Your task to perform on an android device: Open the Play Movies app and select the watchlist tab. Image 0: 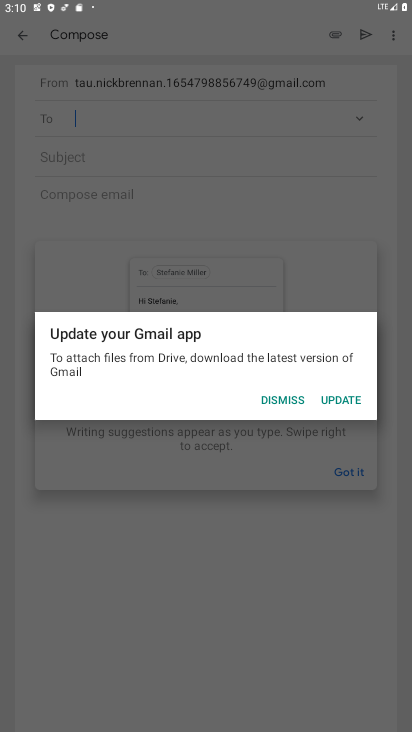
Step 0: press home button
Your task to perform on an android device: Open the Play Movies app and select the watchlist tab. Image 1: 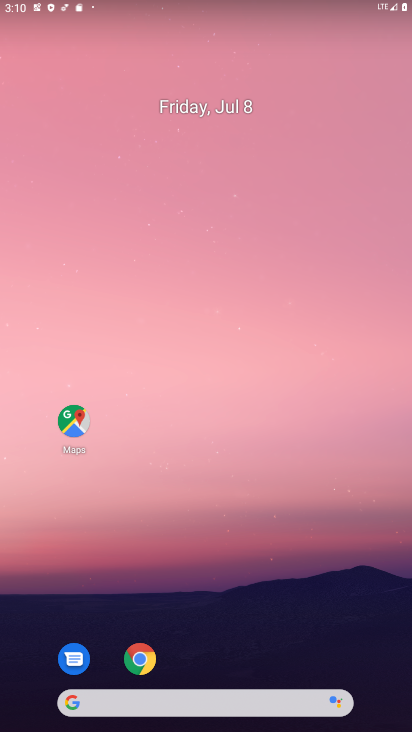
Step 1: drag from (210, 630) to (209, 191)
Your task to perform on an android device: Open the Play Movies app and select the watchlist tab. Image 2: 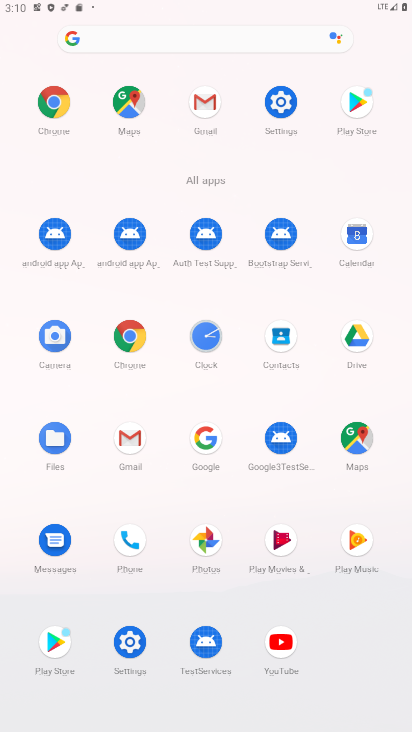
Step 2: click (291, 541)
Your task to perform on an android device: Open the Play Movies app and select the watchlist tab. Image 3: 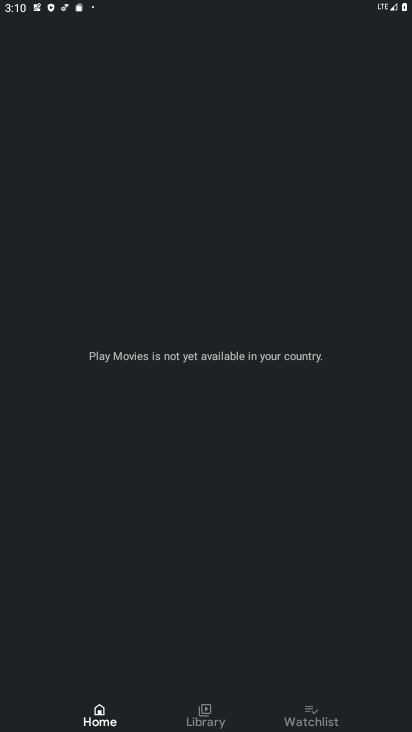
Step 3: click (316, 705)
Your task to perform on an android device: Open the Play Movies app and select the watchlist tab. Image 4: 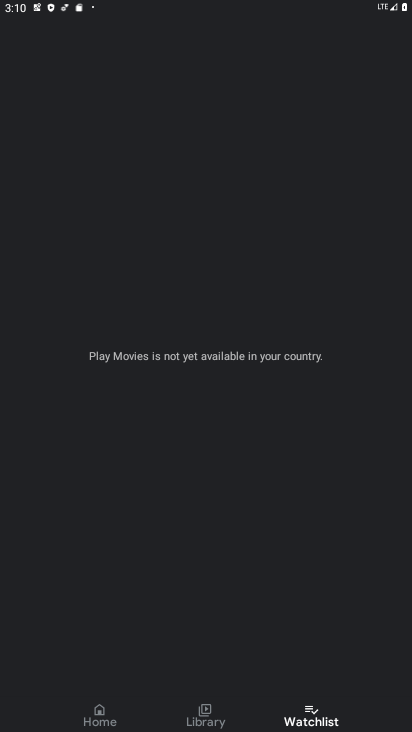
Step 4: task complete